Your task to perform on an android device: Open Reddit.com Image 0: 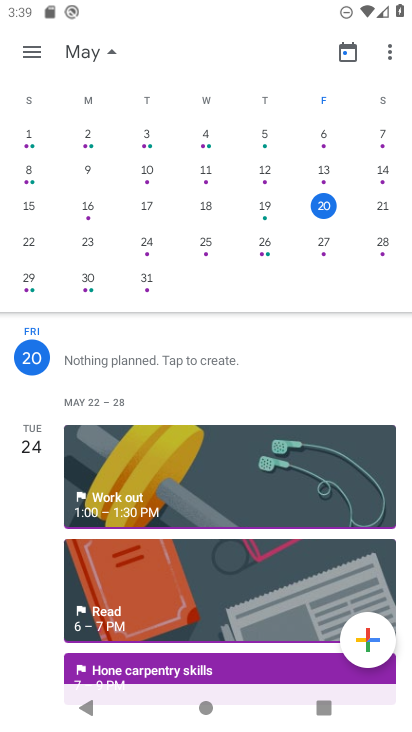
Step 0: press home button
Your task to perform on an android device: Open Reddit.com Image 1: 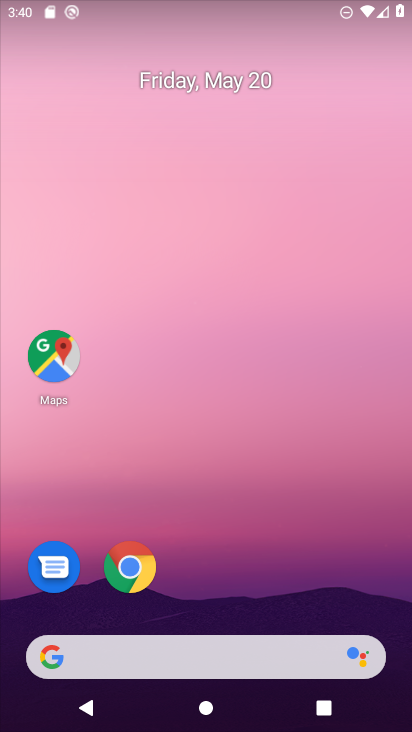
Step 1: click (131, 572)
Your task to perform on an android device: Open Reddit.com Image 2: 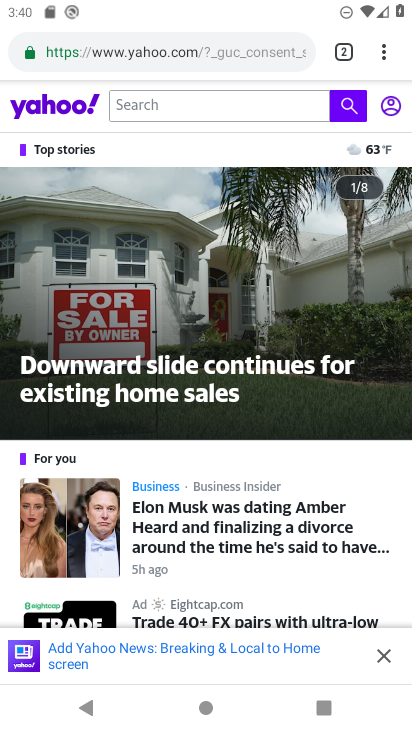
Step 2: click (384, 59)
Your task to perform on an android device: Open Reddit.com Image 3: 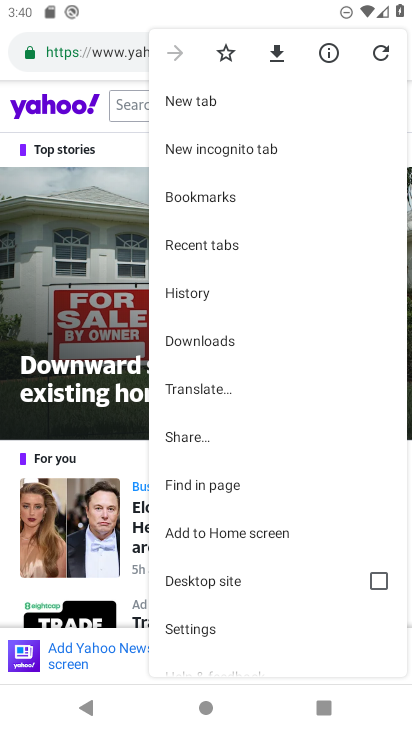
Step 3: click (191, 96)
Your task to perform on an android device: Open Reddit.com Image 4: 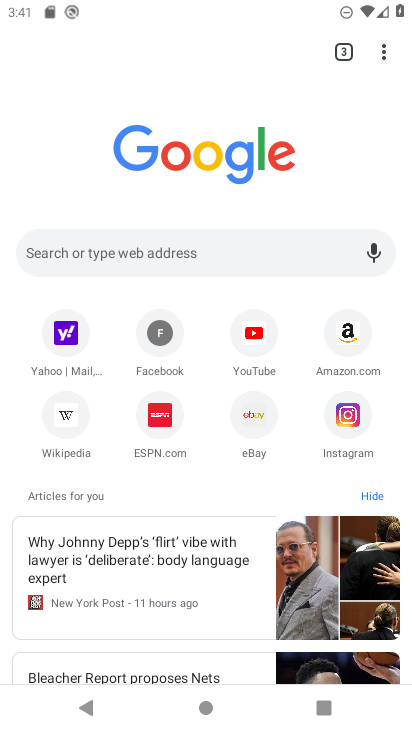
Step 4: click (208, 254)
Your task to perform on an android device: Open Reddit.com Image 5: 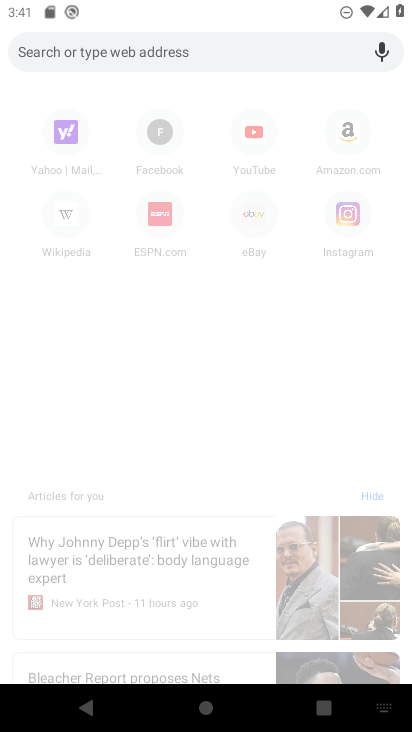
Step 5: type "Reddit.com"
Your task to perform on an android device: Open Reddit.com Image 6: 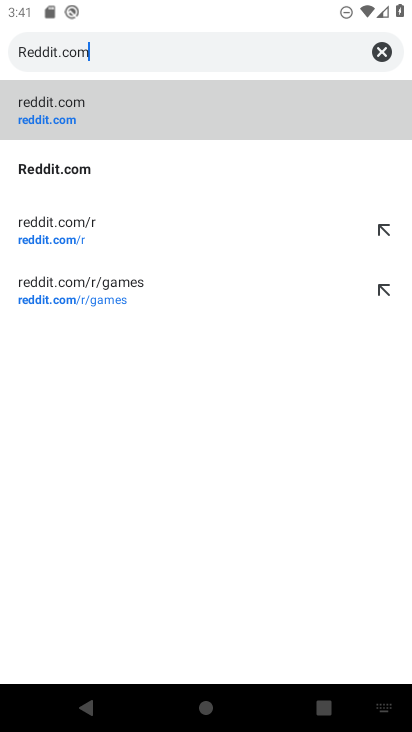
Step 6: click (64, 111)
Your task to perform on an android device: Open Reddit.com Image 7: 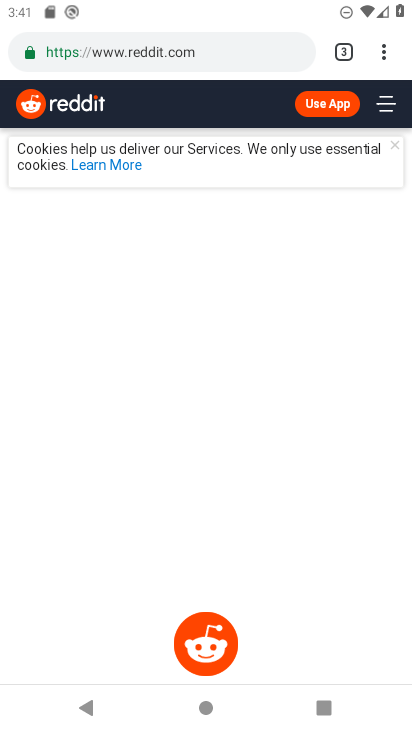
Step 7: task complete